Your task to perform on an android device: open wifi settings Image 0: 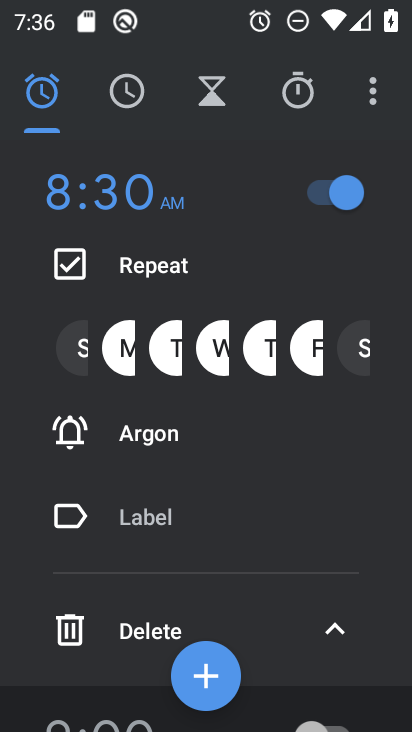
Step 0: press home button
Your task to perform on an android device: open wifi settings Image 1: 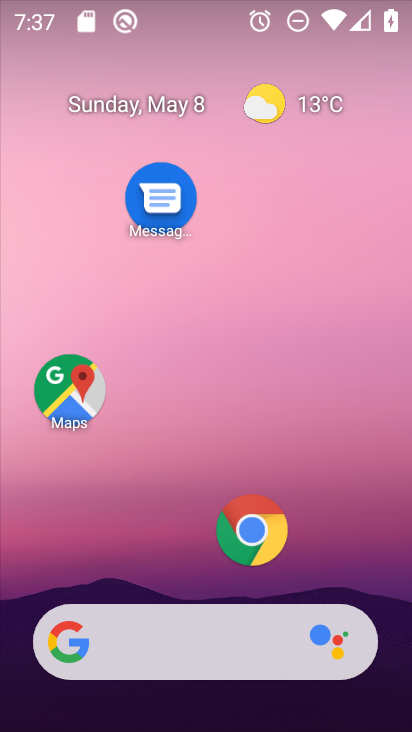
Step 1: drag from (250, 189) to (266, 93)
Your task to perform on an android device: open wifi settings Image 2: 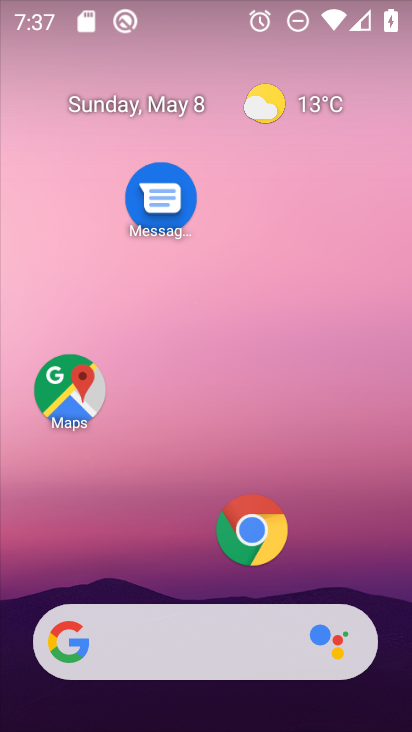
Step 2: drag from (334, 573) to (411, 61)
Your task to perform on an android device: open wifi settings Image 3: 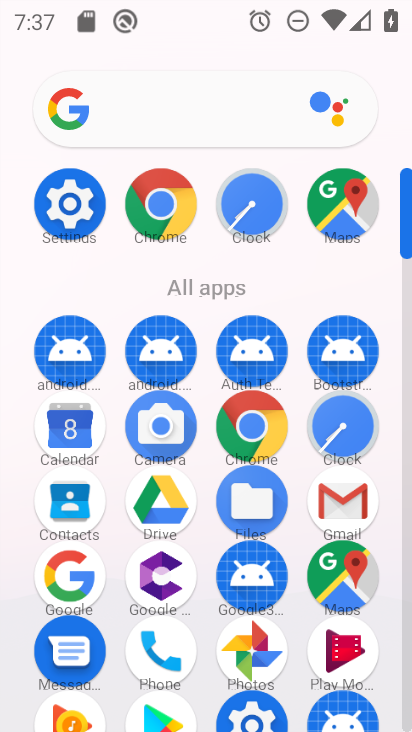
Step 3: click (56, 193)
Your task to perform on an android device: open wifi settings Image 4: 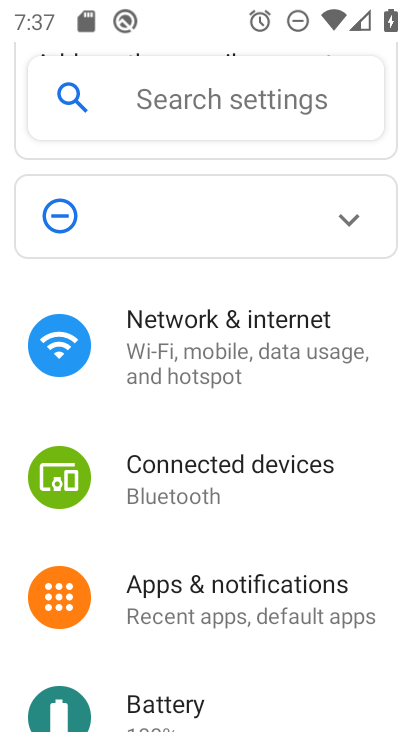
Step 4: click (195, 354)
Your task to perform on an android device: open wifi settings Image 5: 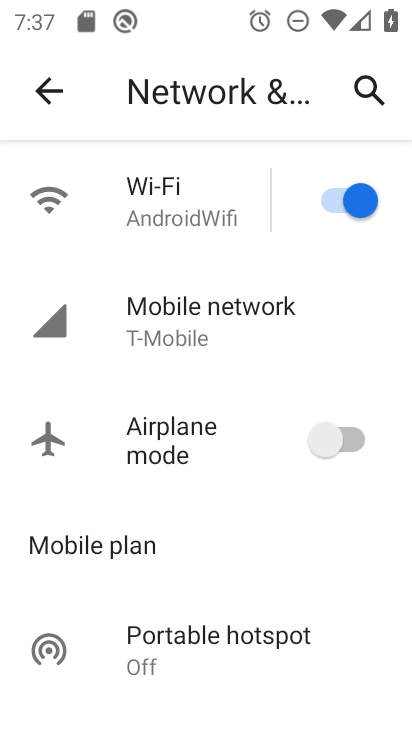
Step 5: click (186, 199)
Your task to perform on an android device: open wifi settings Image 6: 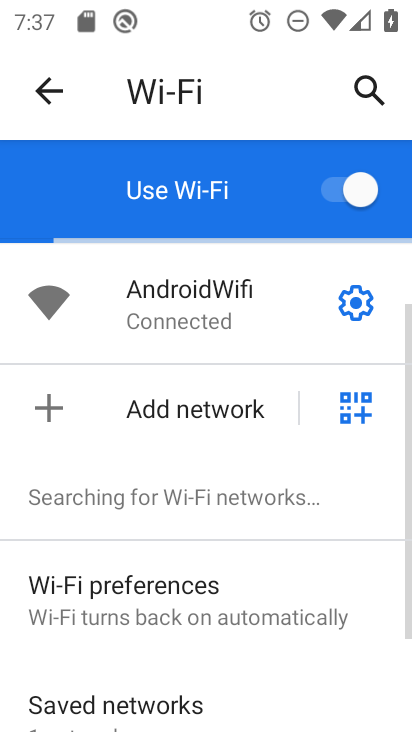
Step 6: task complete